Your task to perform on an android device: Open wifi settings Image 0: 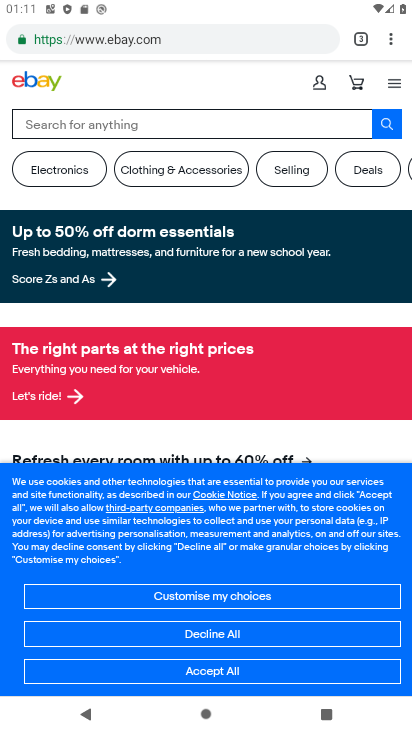
Step 0: press home button
Your task to perform on an android device: Open wifi settings Image 1: 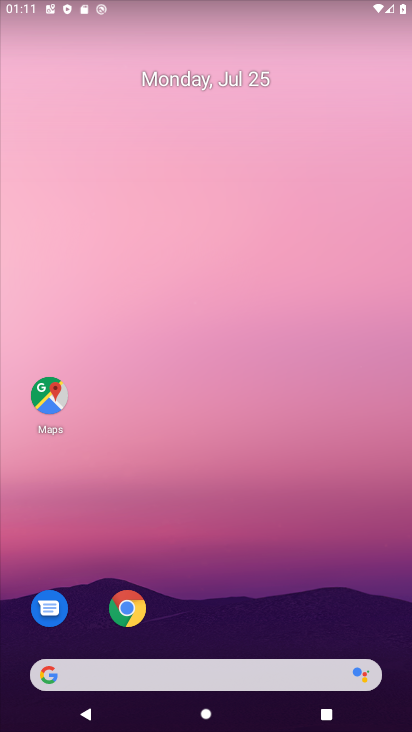
Step 1: drag from (195, 640) to (116, 130)
Your task to perform on an android device: Open wifi settings Image 2: 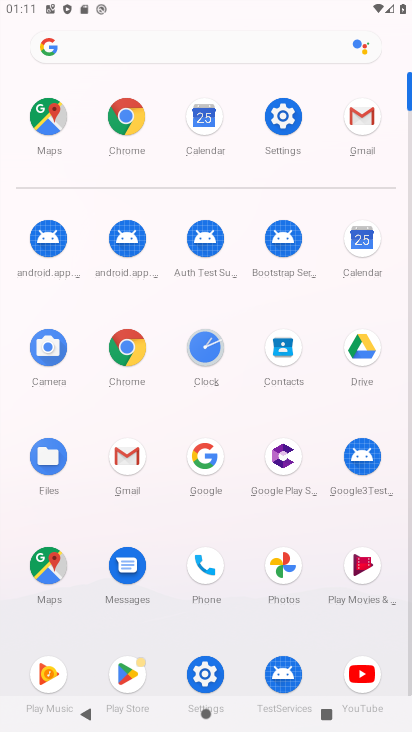
Step 2: click (284, 130)
Your task to perform on an android device: Open wifi settings Image 3: 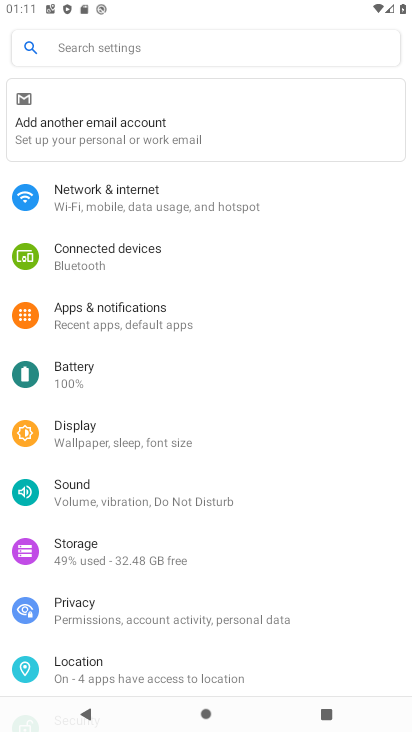
Step 3: click (150, 189)
Your task to perform on an android device: Open wifi settings Image 4: 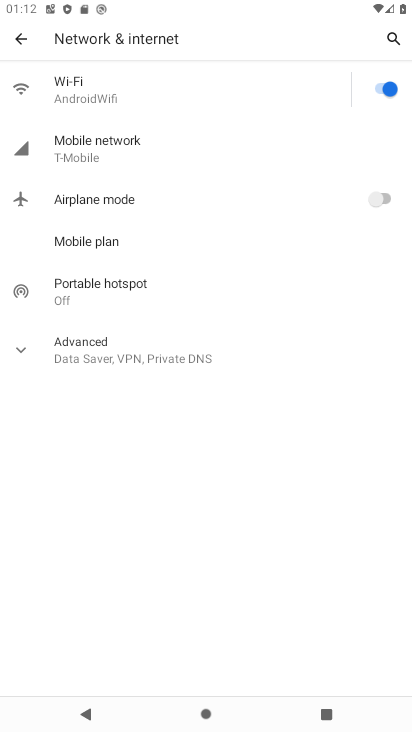
Step 4: click (126, 95)
Your task to perform on an android device: Open wifi settings Image 5: 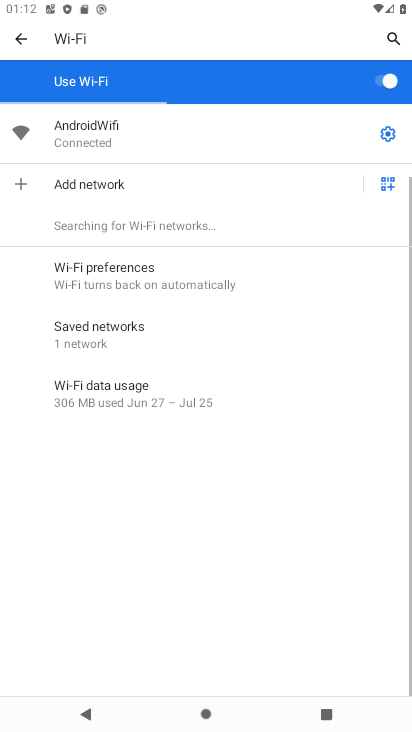
Step 5: task complete